Your task to perform on an android device: delete a single message in the gmail app Image 0: 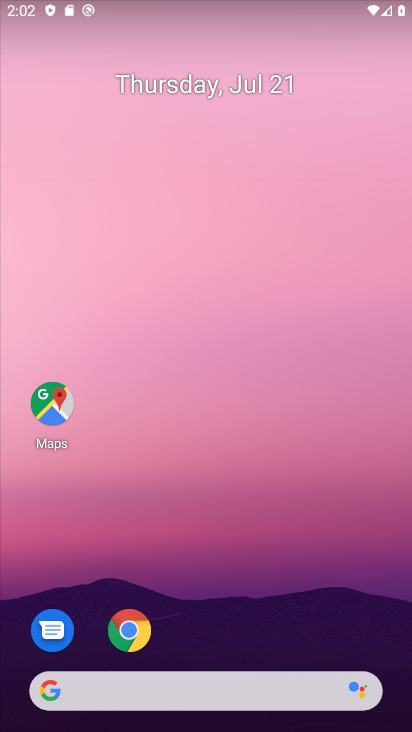
Step 0: press home button
Your task to perform on an android device: delete a single message in the gmail app Image 1: 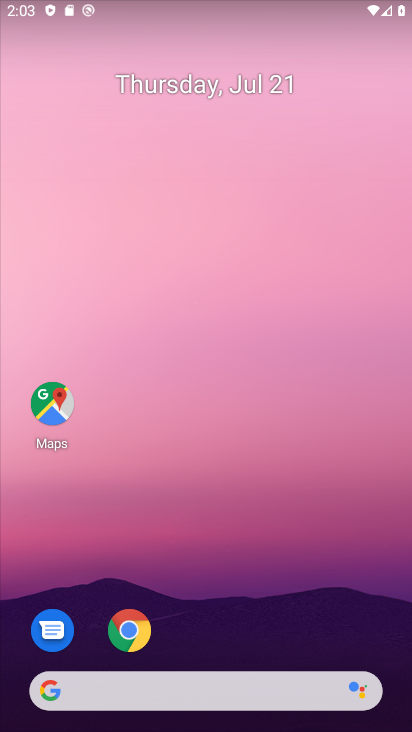
Step 1: drag from (277, 600) to (244, 110)
Your task to perform on an android device: delete a single message in the gmail app Image 2: 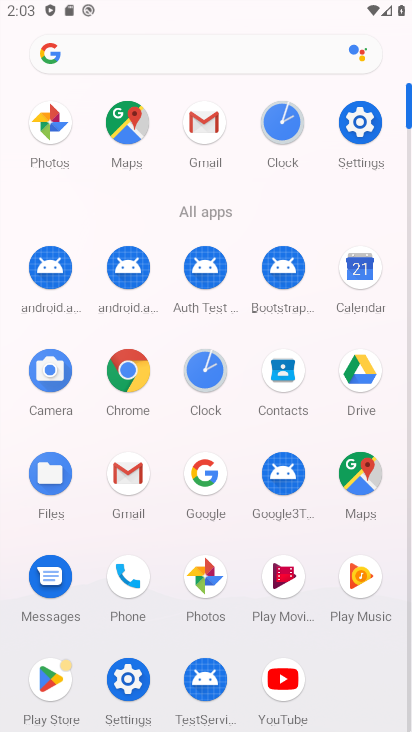
Step 2: click (123, 478)
Your task to perform on an android device: delete a single message in the gmail app Image 3: 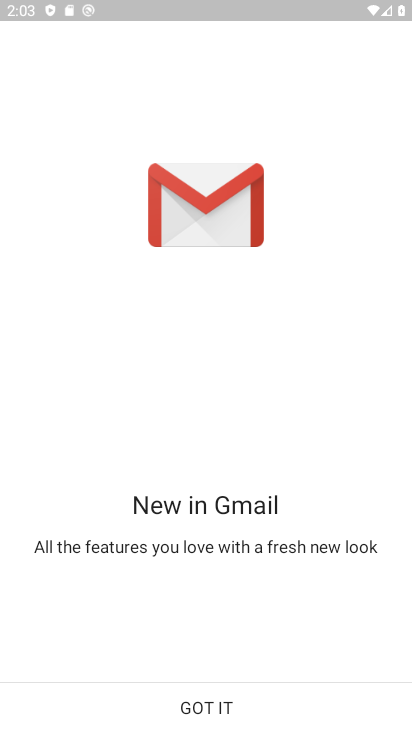
Step 3: click (218, 689)
Your task to perform on an android device: delete a single message in the gmail app Image 4: 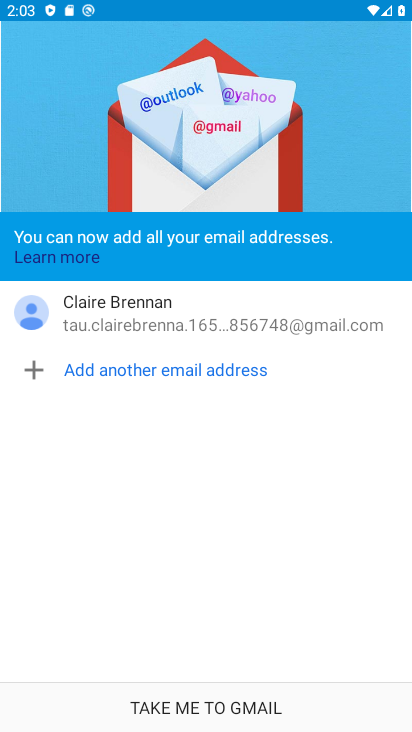
Step 4: click (218, 689)
Your task to perform on an android device: delete a single message in the gmail app Image 5: 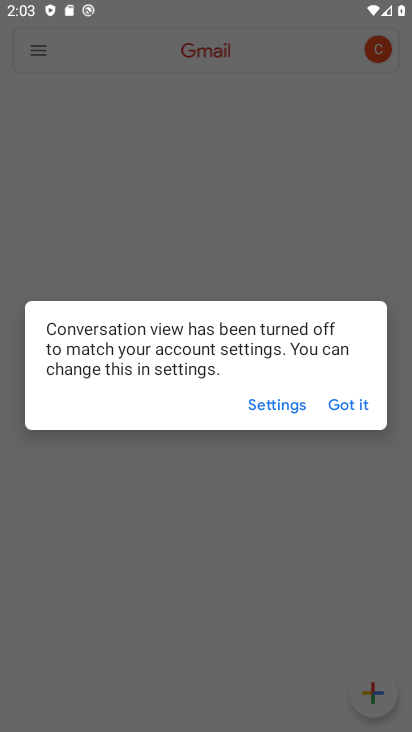
Step 5: click (339, 405)
Your task to perform on an android device: delete a single message in the gmail app Image 6: 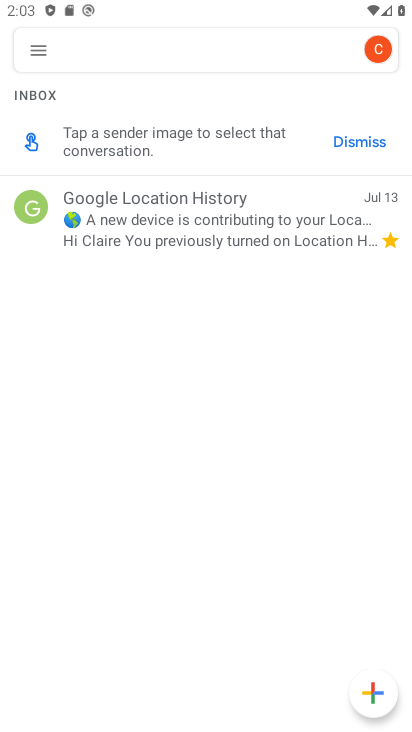
Step 6: click (218, 225)
Your task to perform on an android device: delete a single message in the gmail app Image 7: 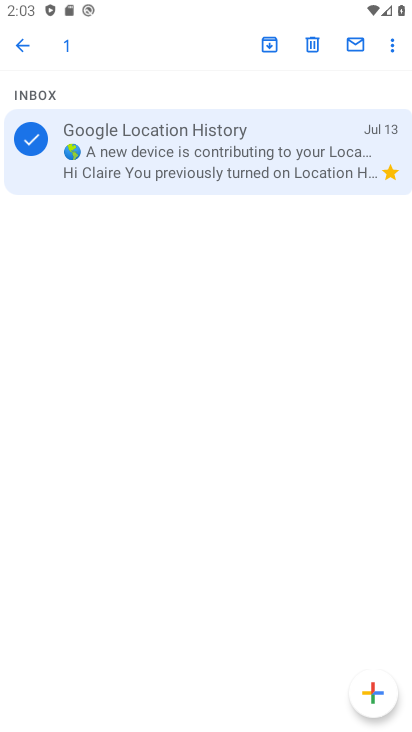
Step 7: click (313, 37)
Your task to perform on an android device: delete a single message in the gmail app Image 8: 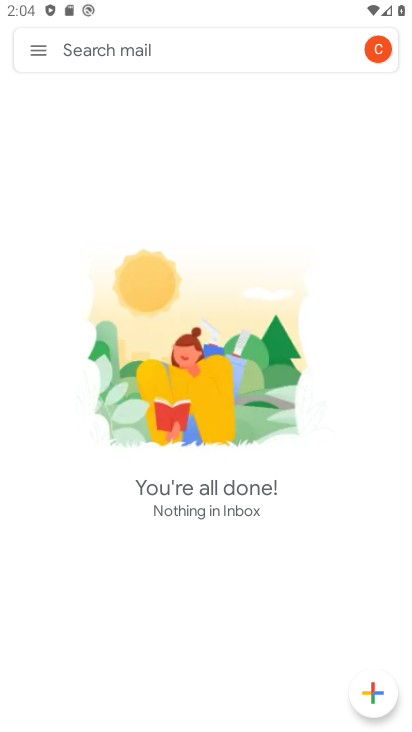
Step 8: task complete